Your task to perform on an android device: change keyboard looks Image 0: 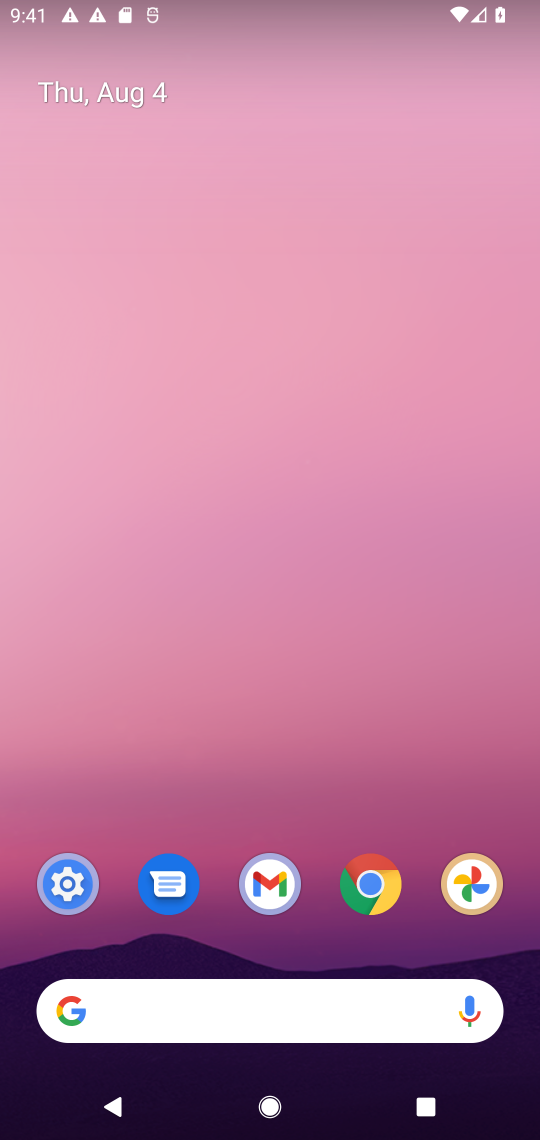
Step 0: press back button
Your task to perform on an android device: change keyboard looks Image 1: 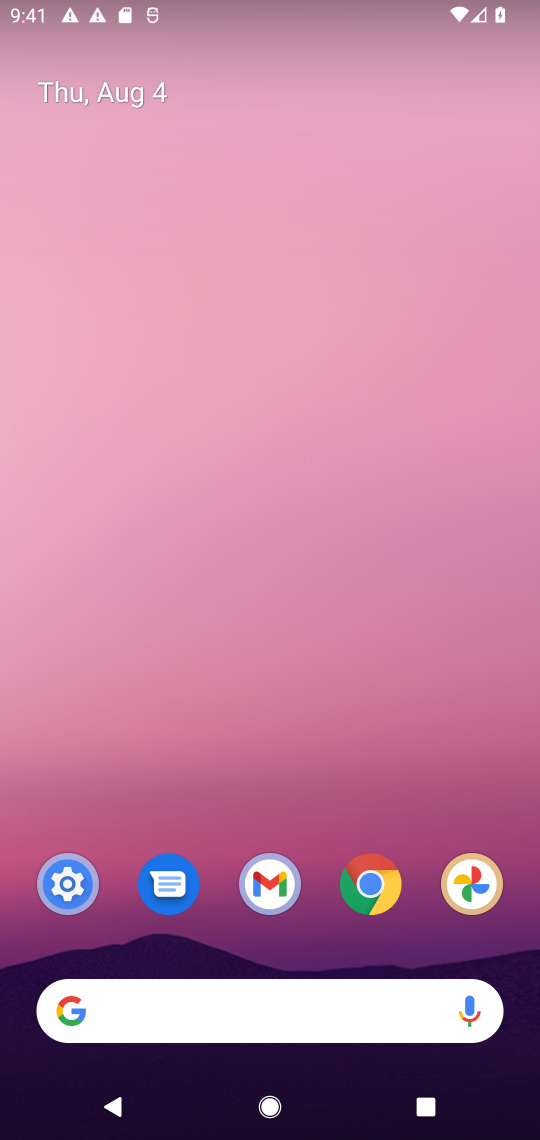
Step 1: click (285, 521)
Your task to perform on an android device: change keyboard looks Image 2: 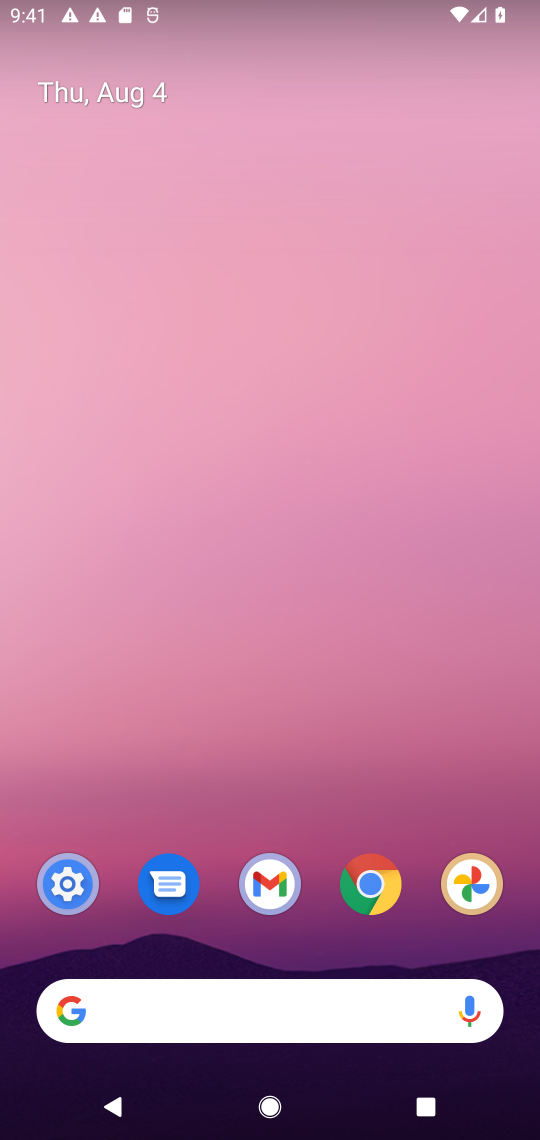
Step 2: drag from (272, 925) to (203, 367)
Your task to perform on an android device: change keyboard looks Image 3: 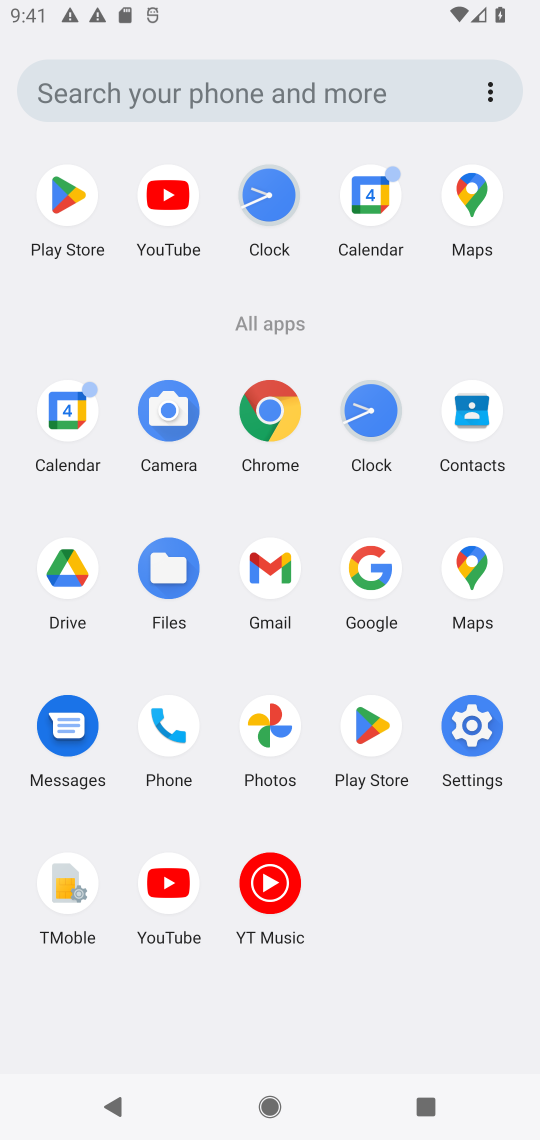
Step 3: drag from (182, 979) to (108, 567)
Your task to perform on an android device: change keyboard looks Image 4: 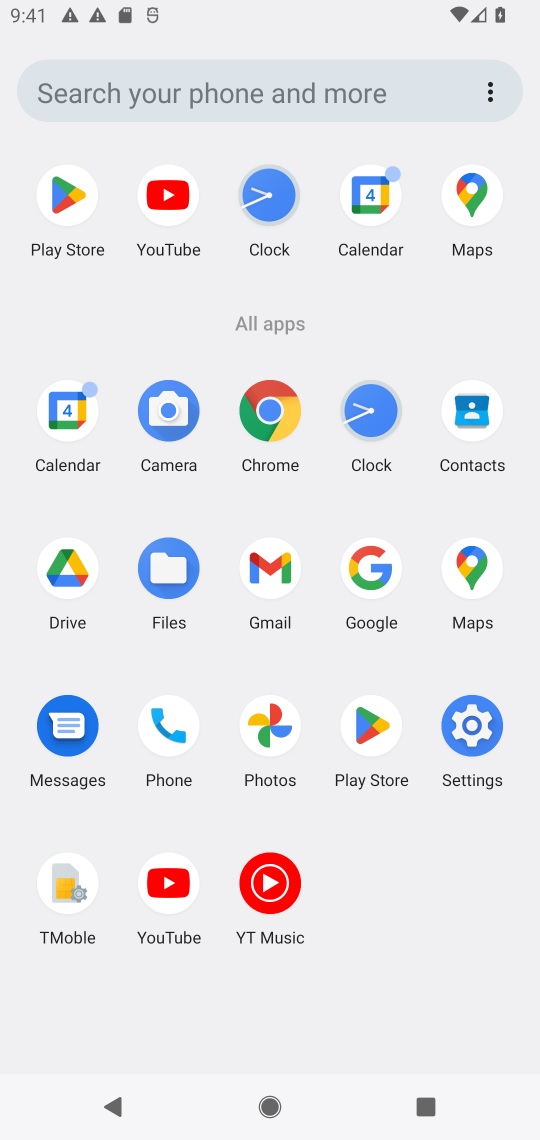
Step 4: click (478, 704)
Your task to perform on an android device: change keyboard looks Image 5: 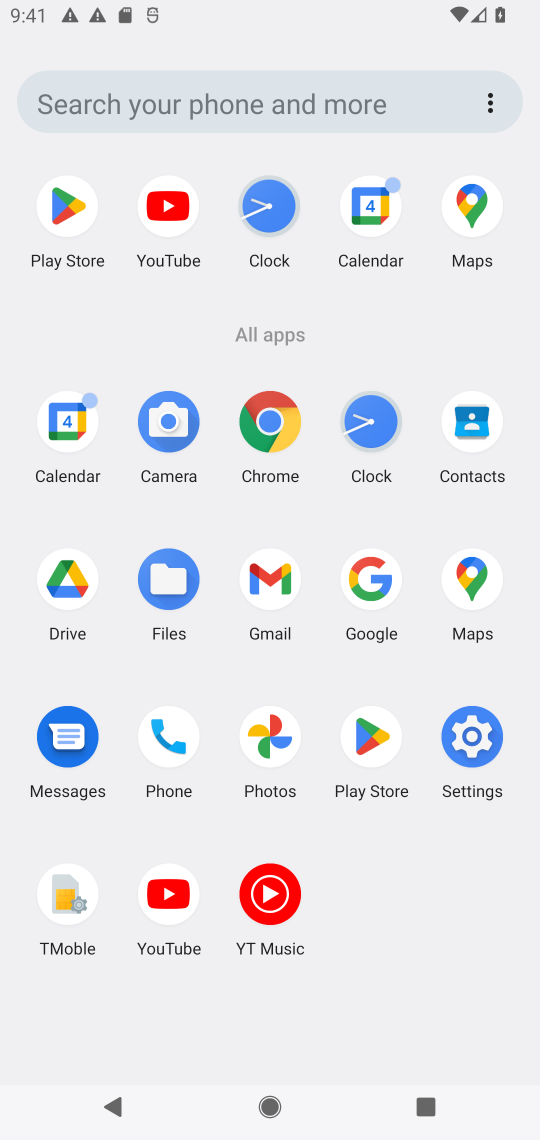
Step 5: click (470, 752)
Your task to perform on an android device: change keyboard looks Image 6: 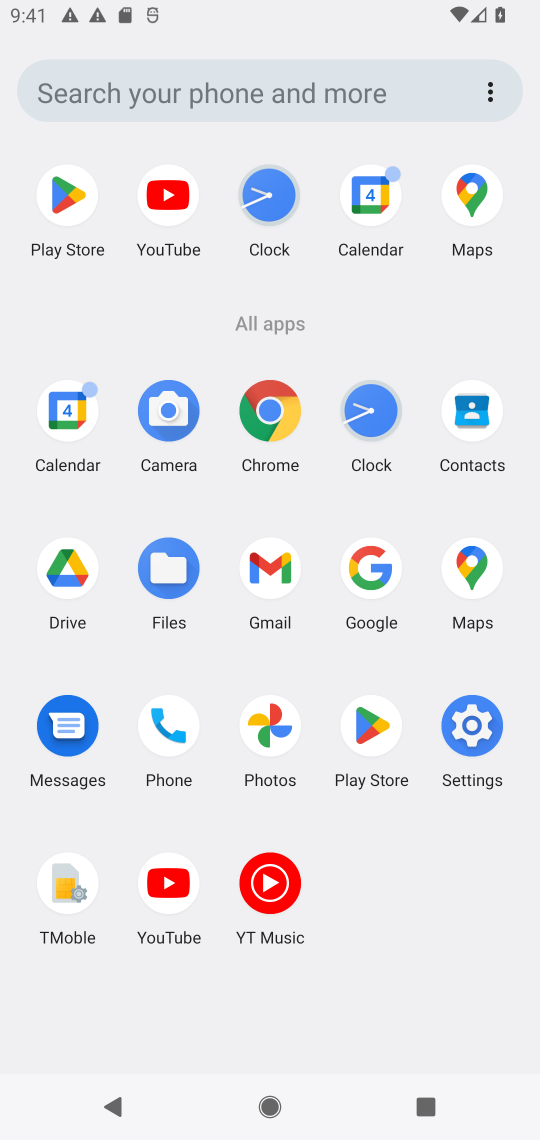
Step 6: click (472, 753)
Your task to perform on an android device: change keyboard looks Image 7: 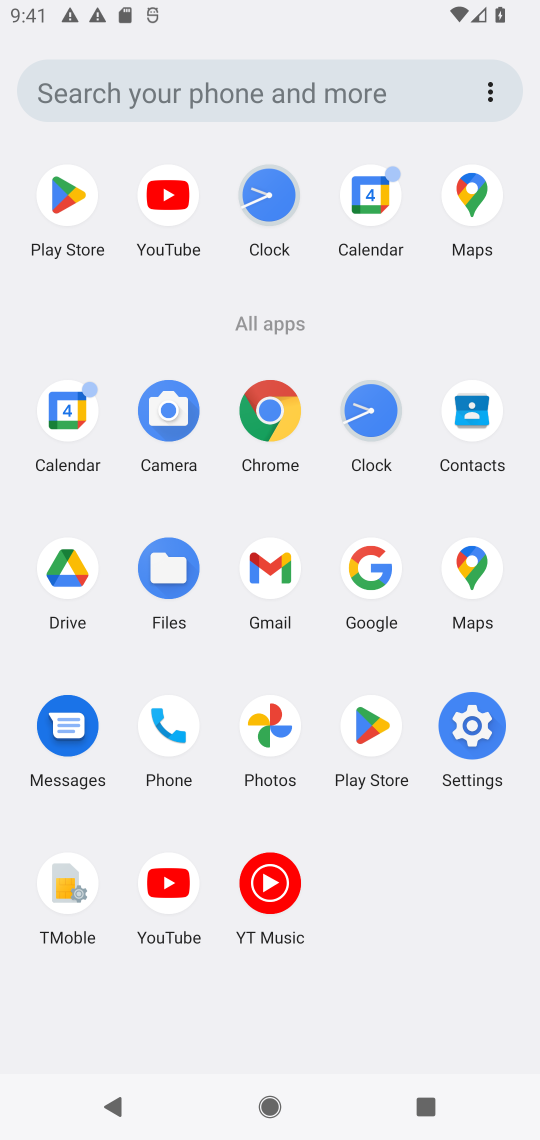
Step 7: click (477, 746)
Your task to perform on an android device: change keyboard looks Image 8: 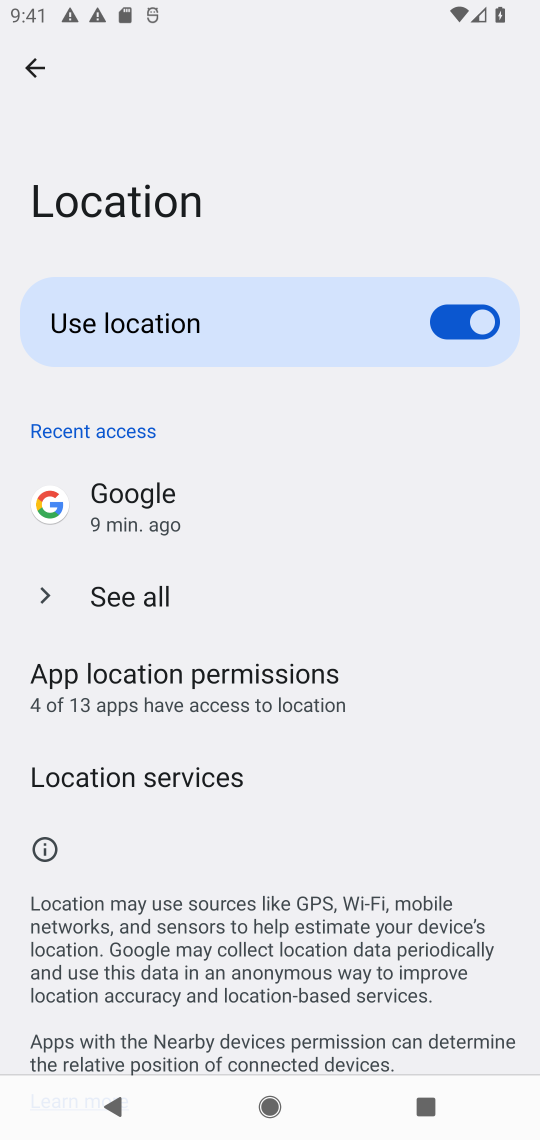
Step 8: click (22, 75)
Your task to perform on an android device: change keyboard looks Image 9: 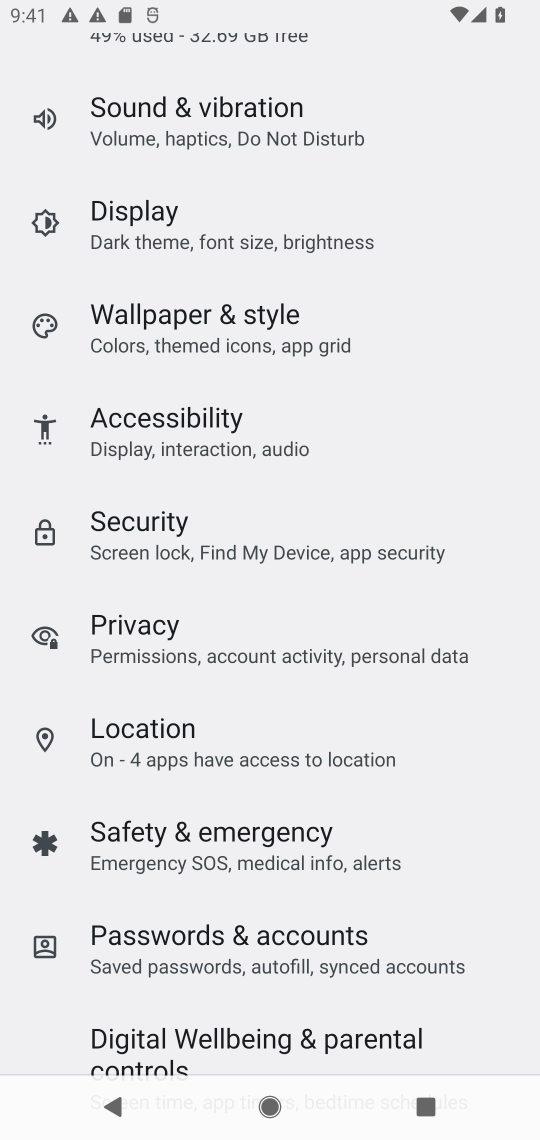
Step 9: drag from (201, 1007) to (240, 452)
Your task to perform on an android device: change keyboard looks Image 10: 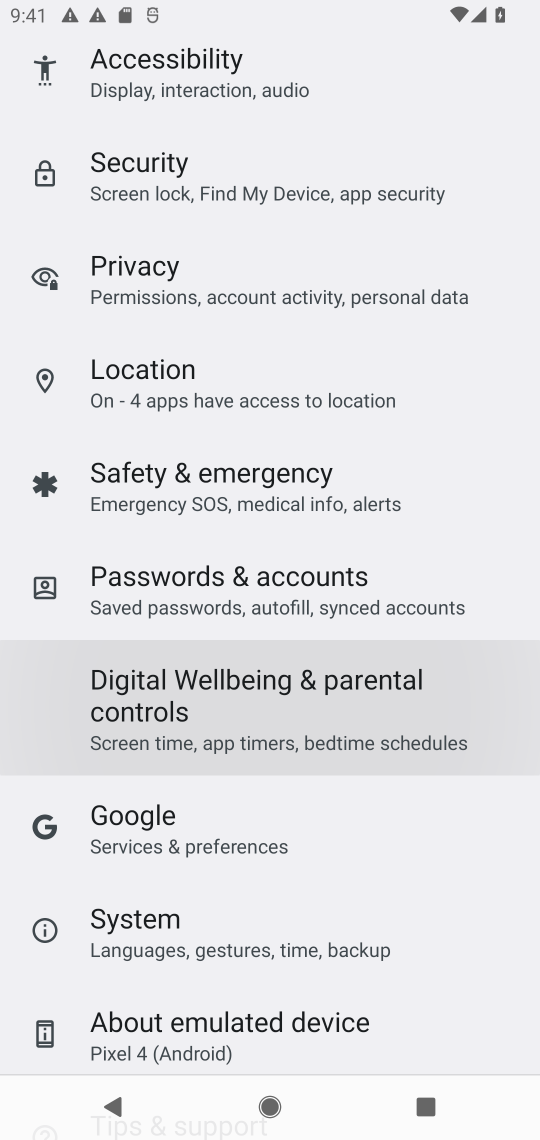
Step 10: click (280, 621)
Your task to perform on an android device: change keyboard looks Image 11: 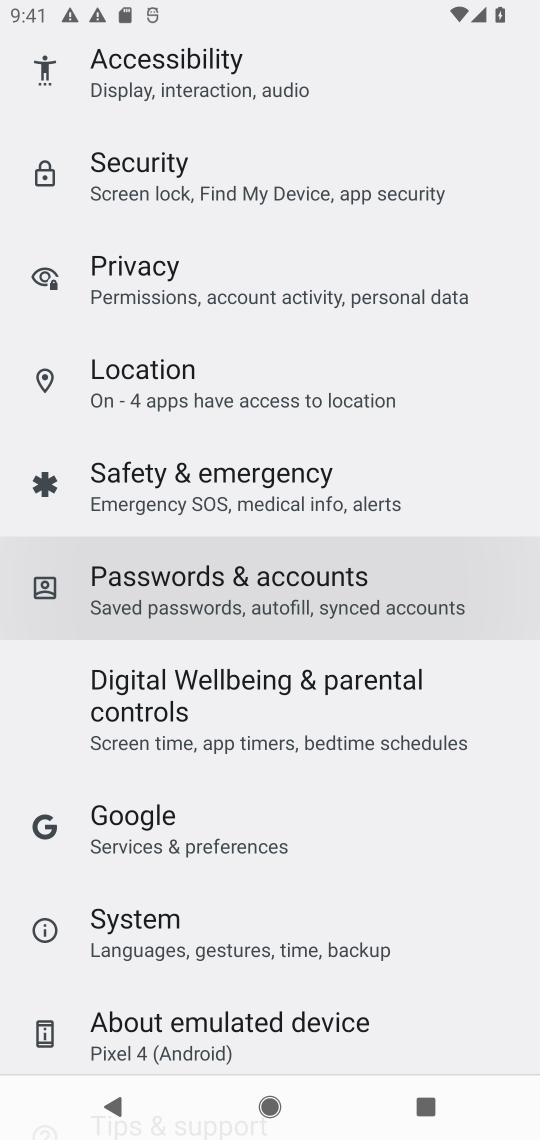
Step 11: drag from (270, 663) to (260, 536)
Your task to perform on an android device: change keyboard looks Image 12: 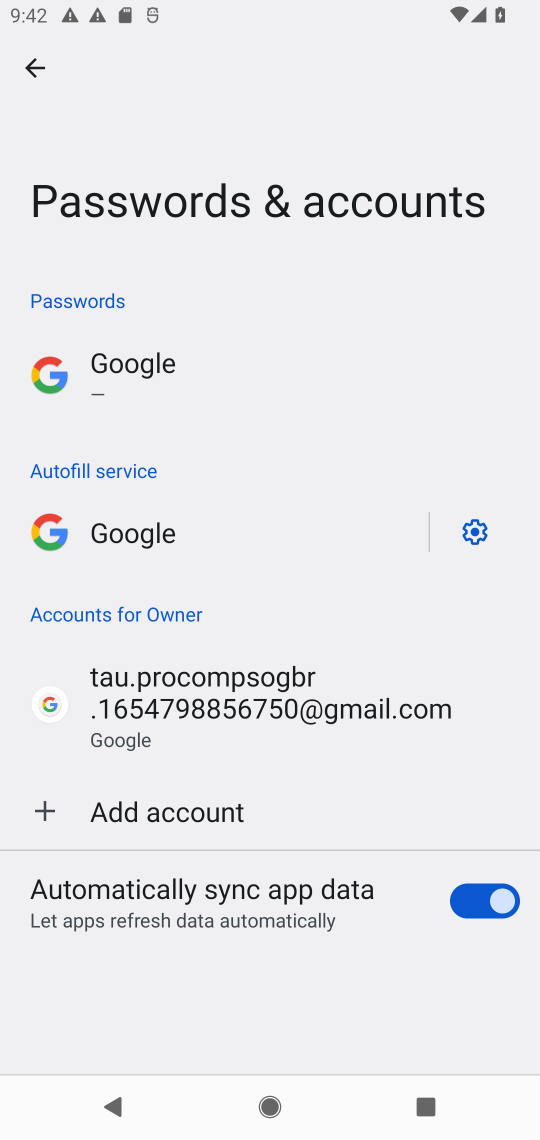
Step 12: click (37, 65)
Your task to perform on an android device: change keyboard looks Image 13: 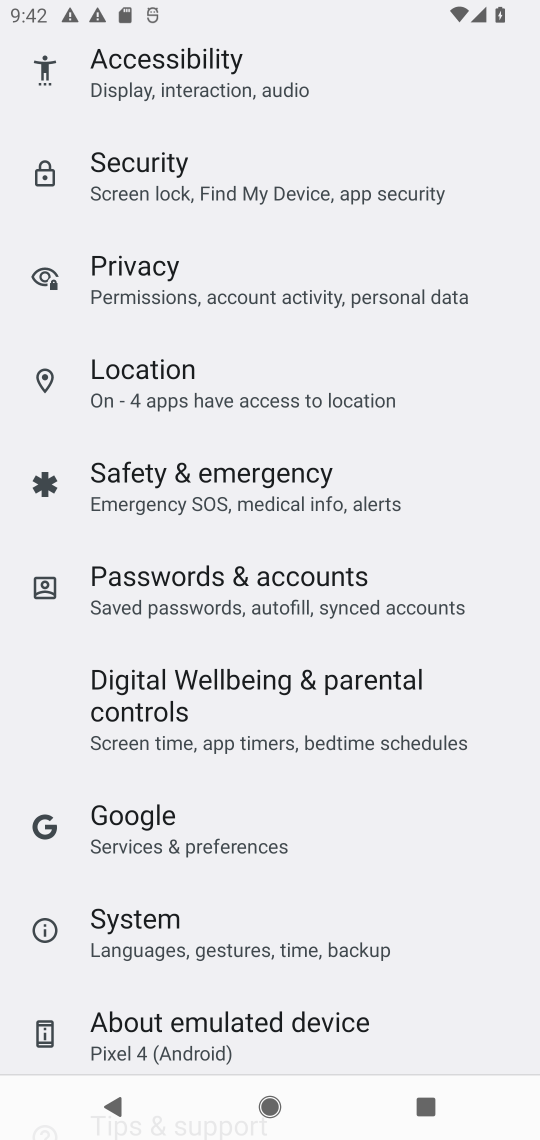
Step 13: click (147, 917)
Your task to perform on an android device: change keyboard looks Image 14: 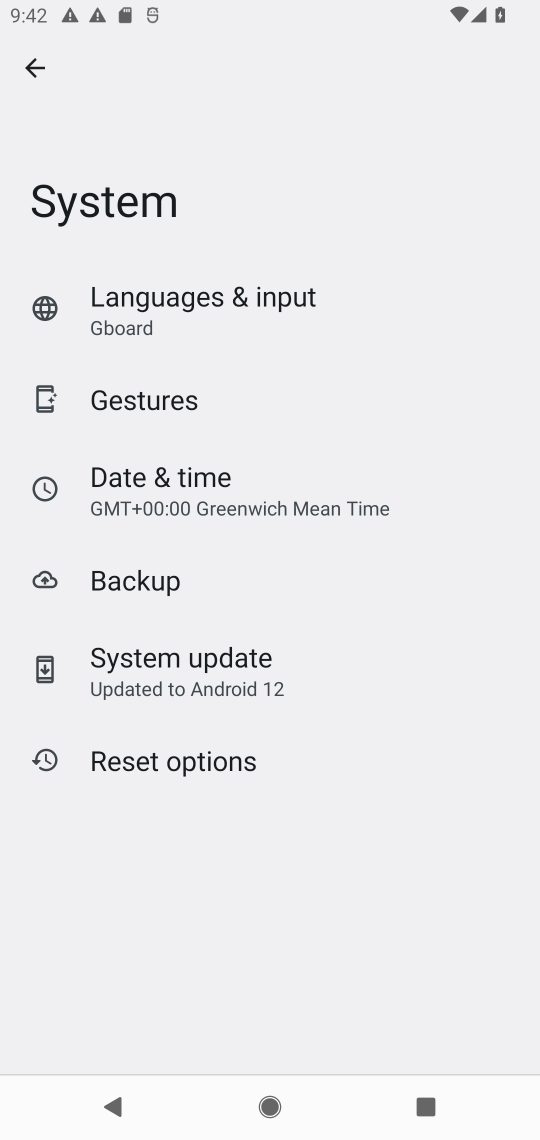
Step 14: click (109, 312)
Your task to perform on an android device: change keyboard looks Image 15: 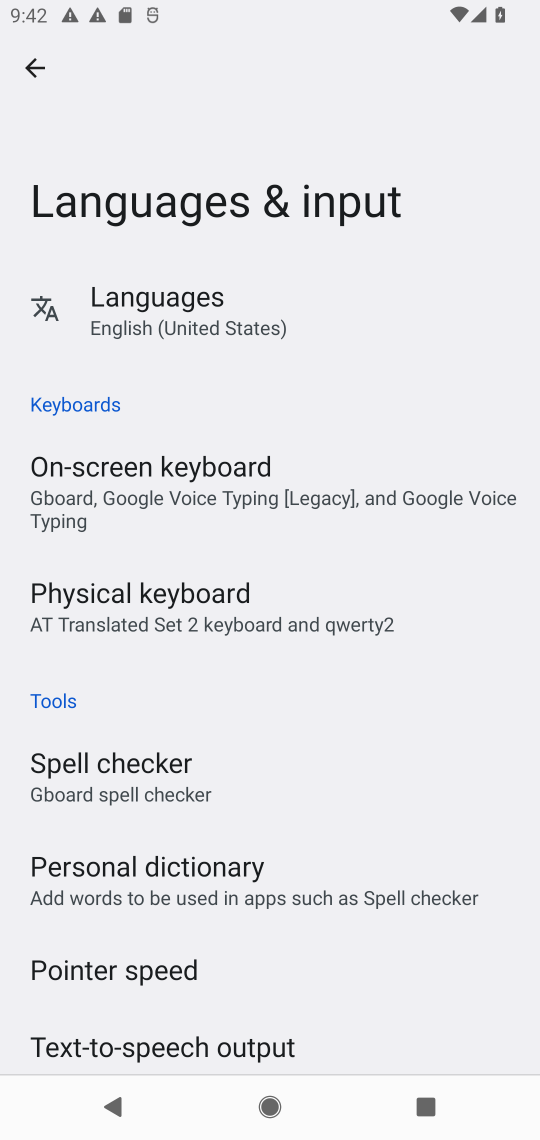
Step 15: drag from (171, 788) to (90, 312)
Your task to perform on an android device: change keyboard looks Image 16: 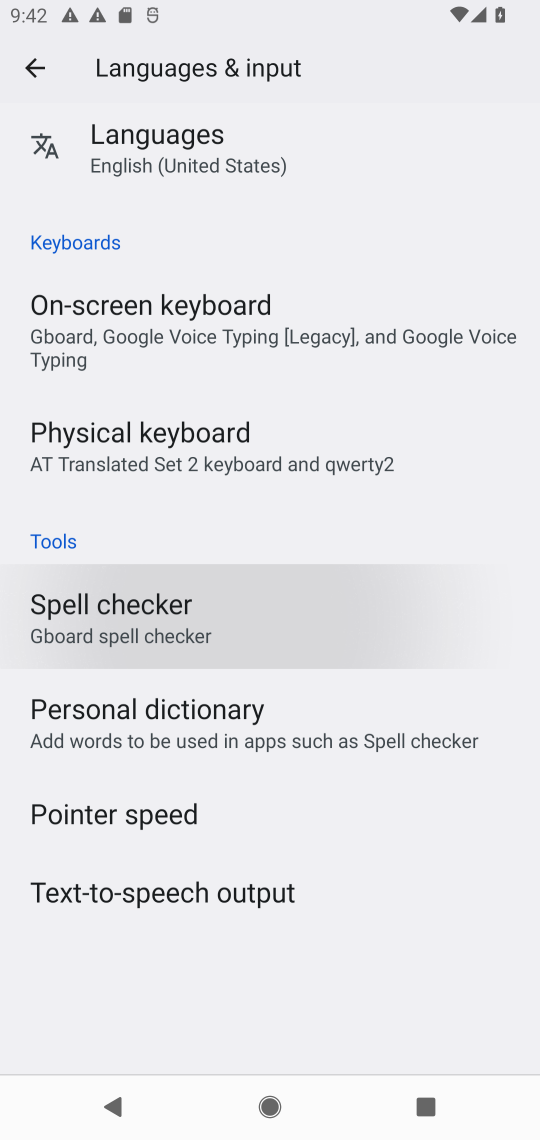
Step 16: drag from (188, 636) to (189, 335)
Your task to perform on an android device: change keyboard looks Image 17: 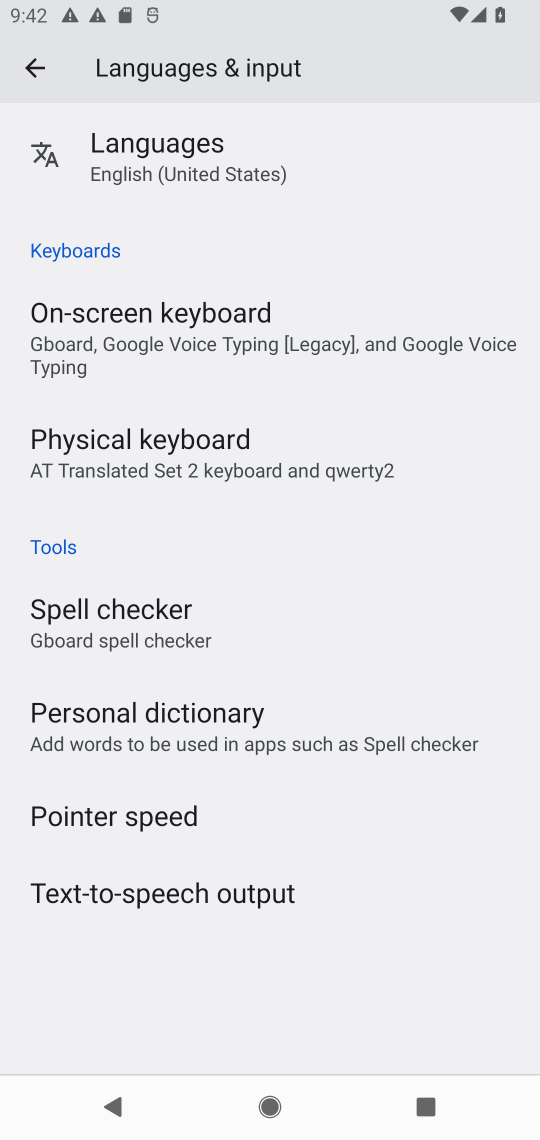
Step 17: click (132, 332)
Your task to perform on an android device: change keyboard looks Image 18: 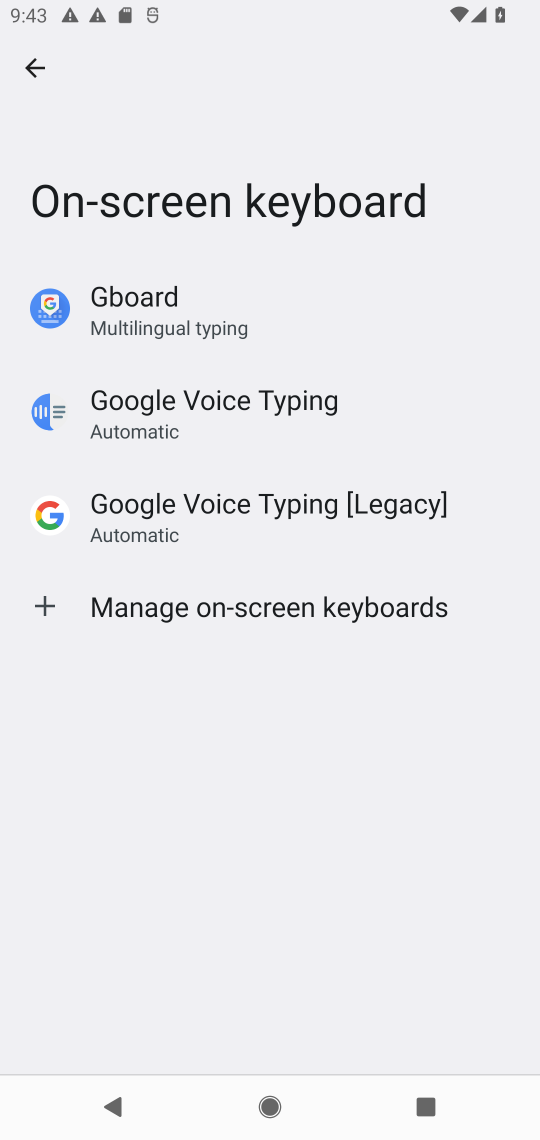
Step 18: click (120, 308)
Your task to perform on an android device: change keyboard looks Image 19: 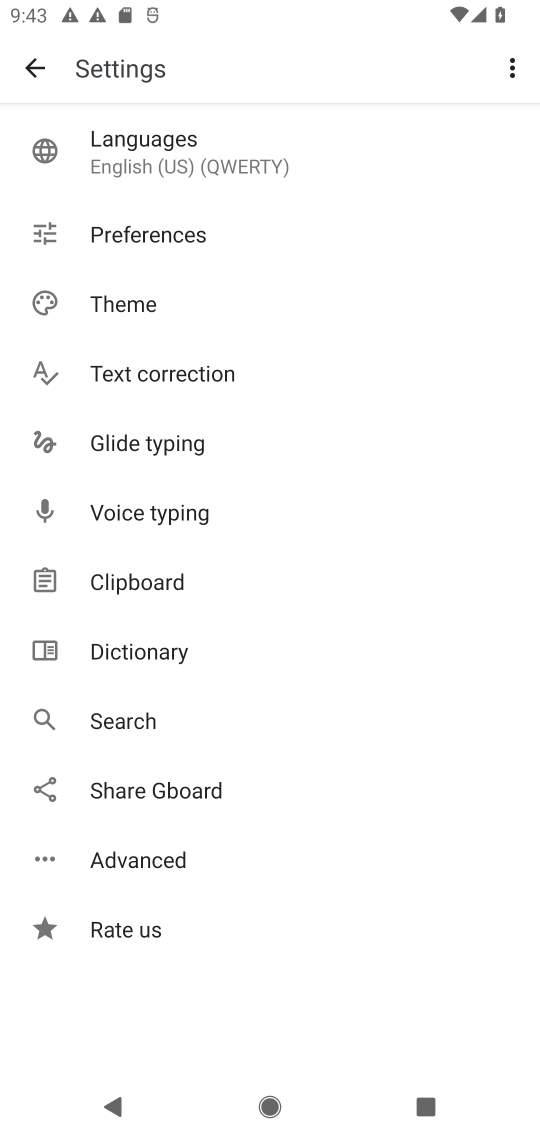
Step 19: click (120, 146)
Your task to perform on an android device: change keyboard looks Image 20: 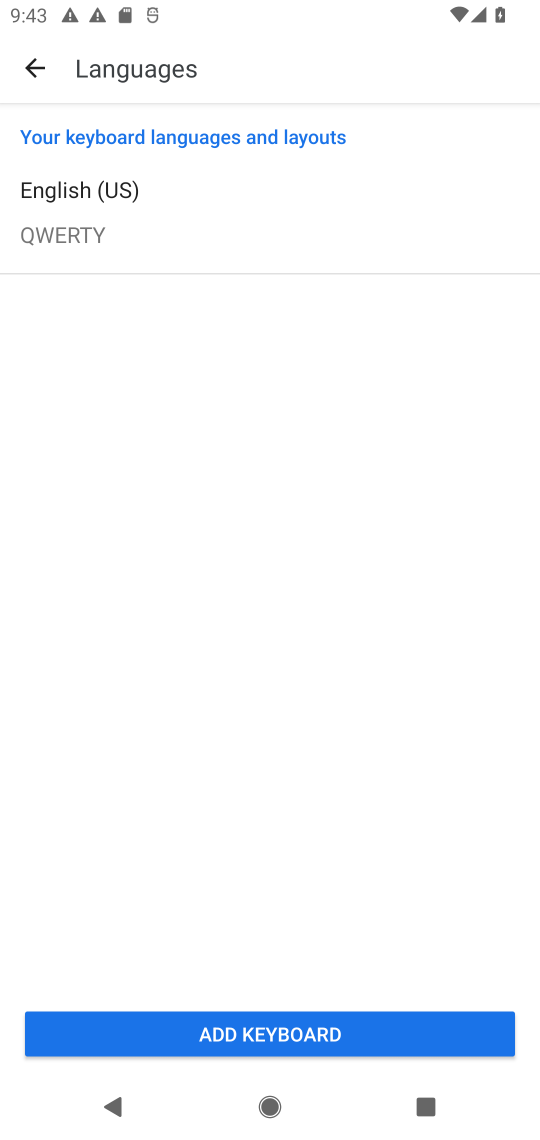
Step 20: click (297, 1019)
Your task to perform on an android device: change keyboard looks Image 21: 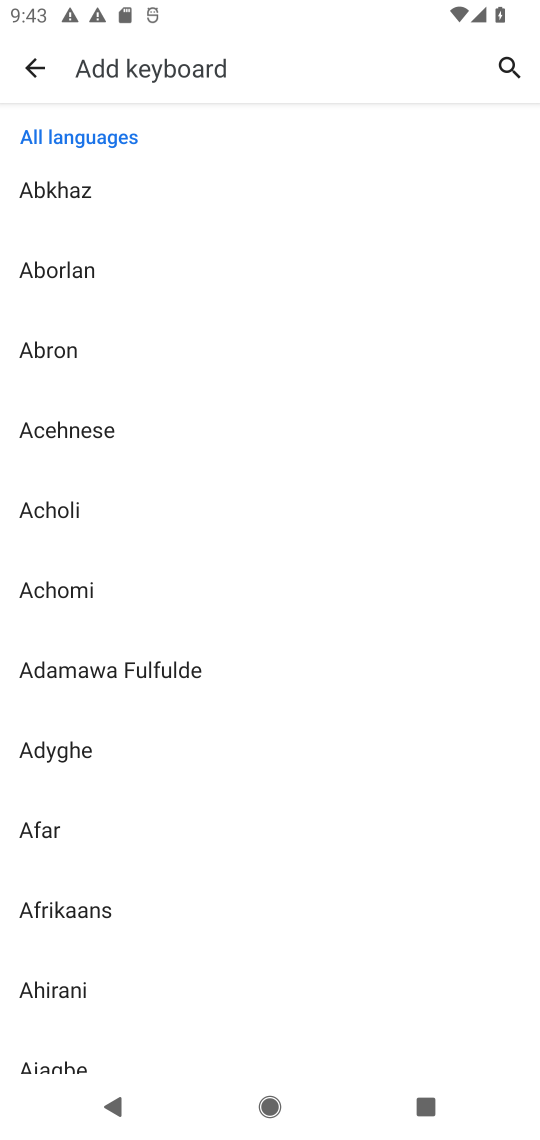
Step 21: click (500, 65)
Your task to perform on an android device: change keyboard looks Image 22: 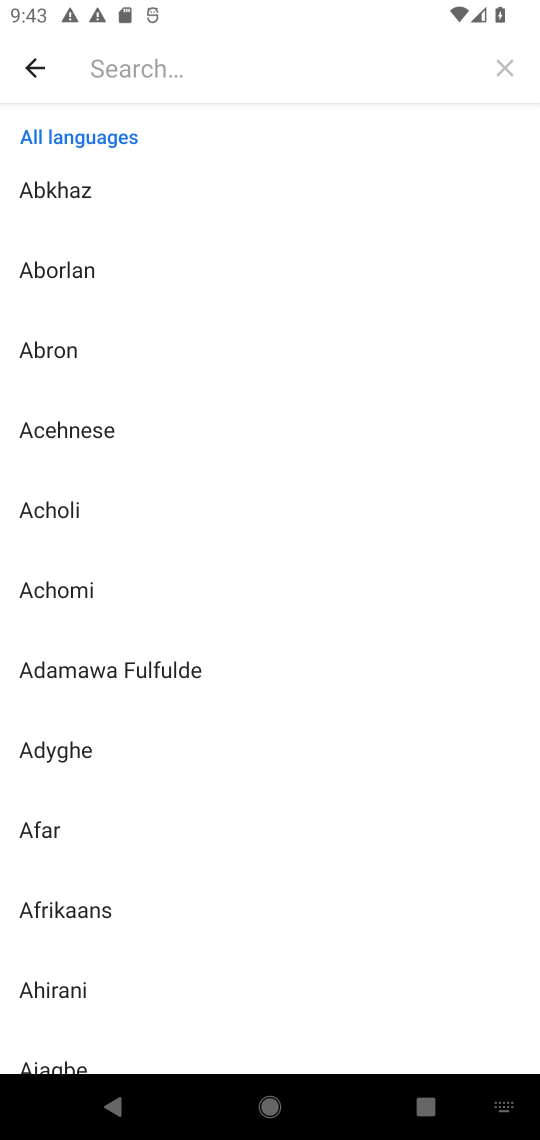
Step 22: type "english"
Your task to perform on an android device: change keyboard looks Image 23: 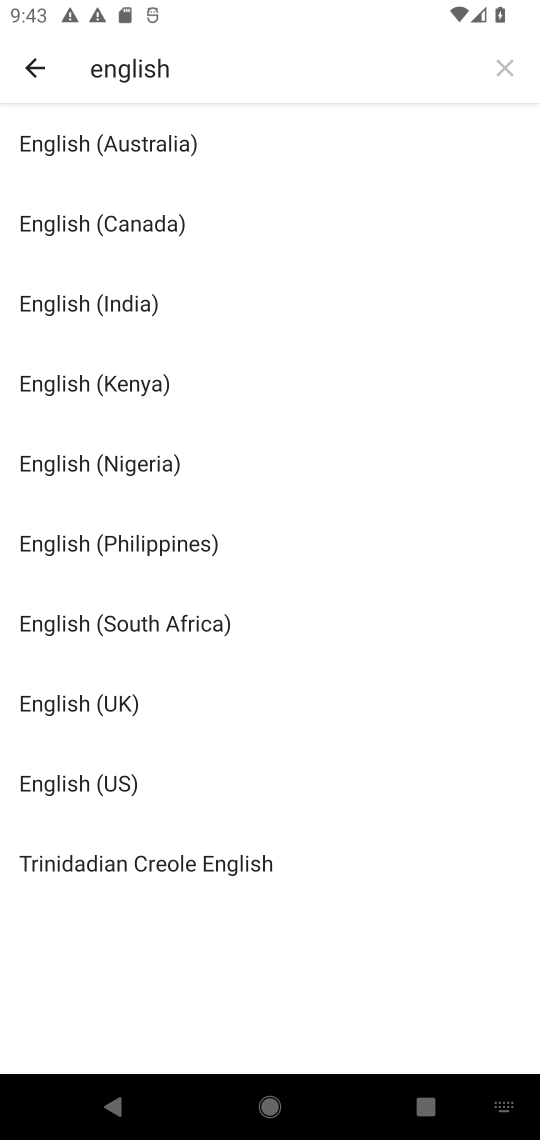
Step 23: click (135, 306)
Your task to perform on an android device: change keyboard looks Image 24: 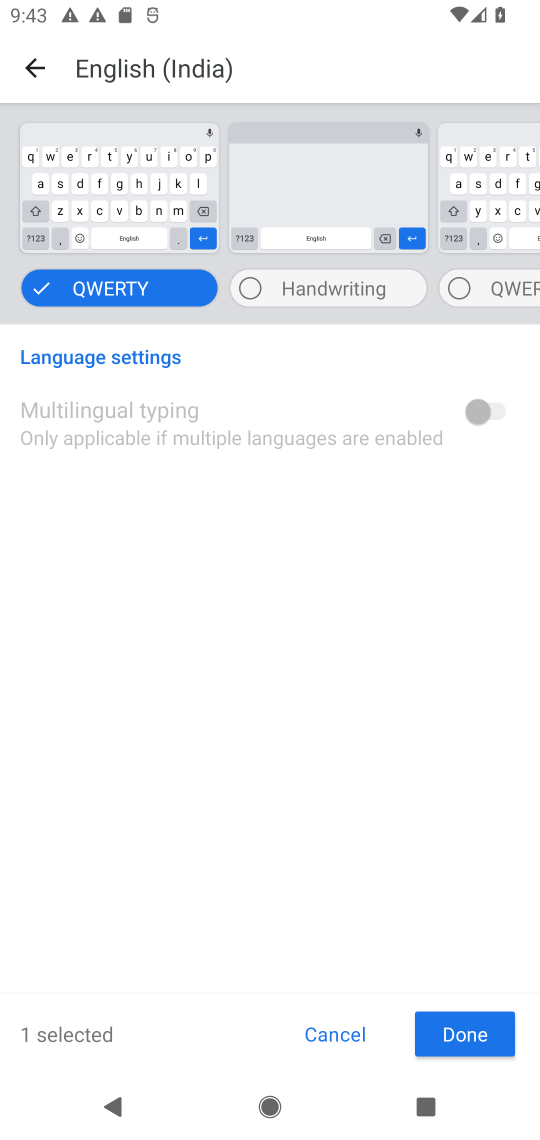
Step 24: click (446, 1031)
Your task to perform on an android device: change keyboard looks Image 25: 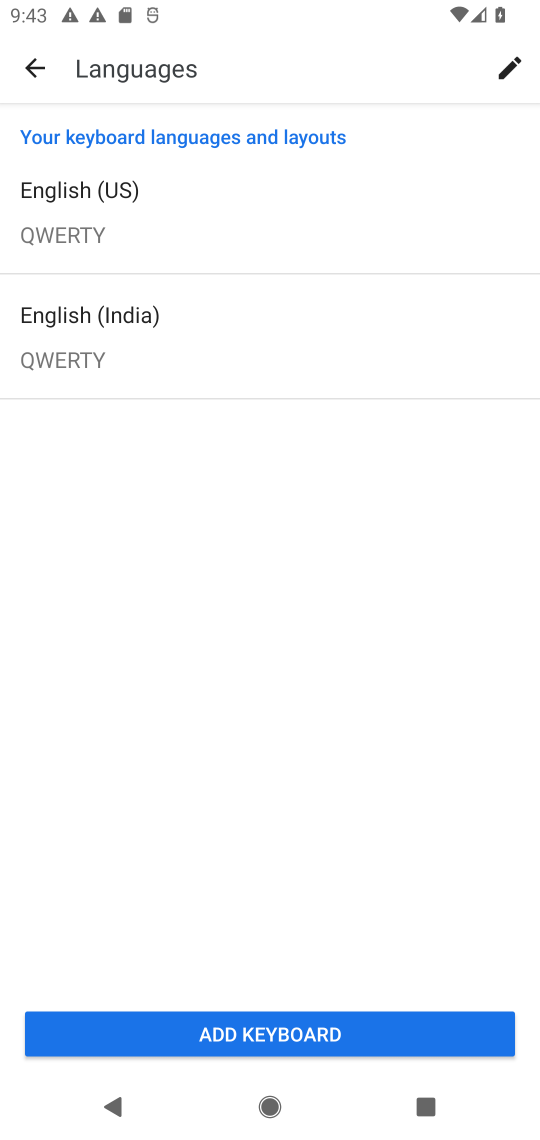
Step 25: click (315, 1042)
Your task to perform on an android device: change keyboard looks Image 26: 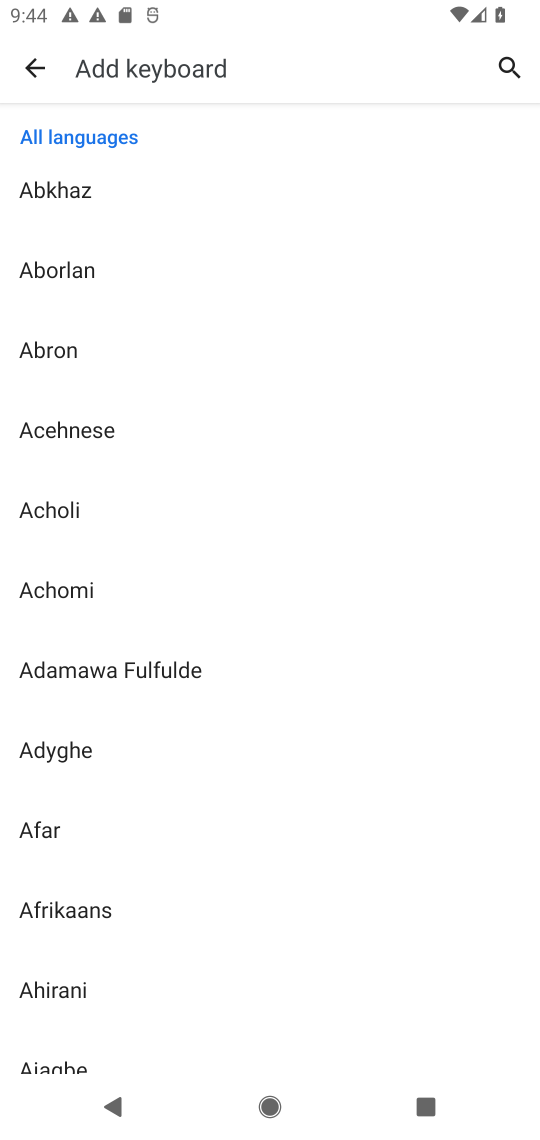
Step 26: task complete